Your task to perform on an android device: install app "DuckDuckGo Privacy Browser" Image 0: 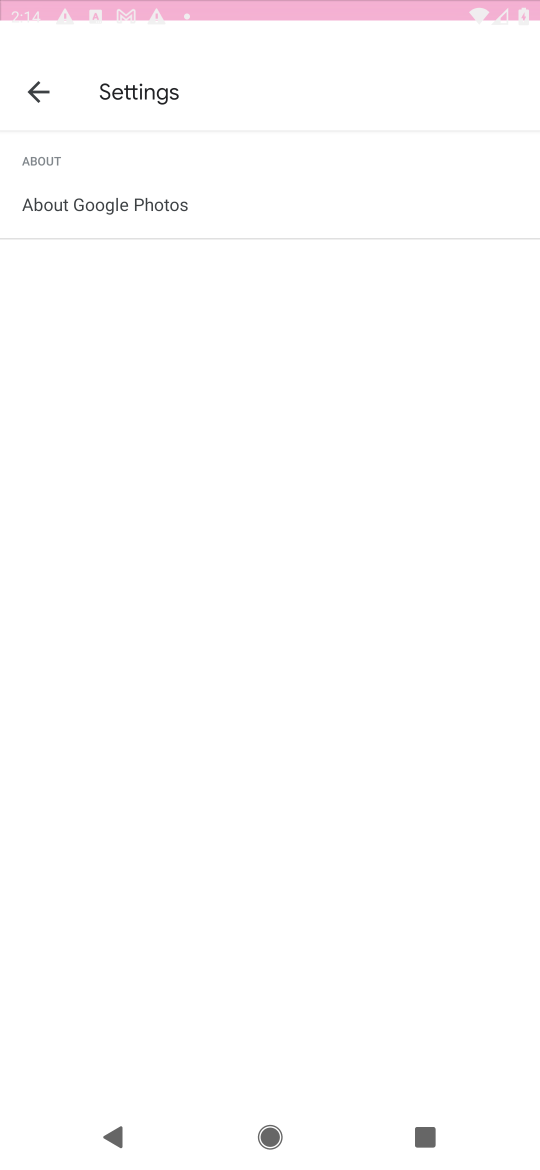
Step 0: press home button
Your task to perform on an android device: install app "DuckDuckGo Privacy Browser" Image 1: 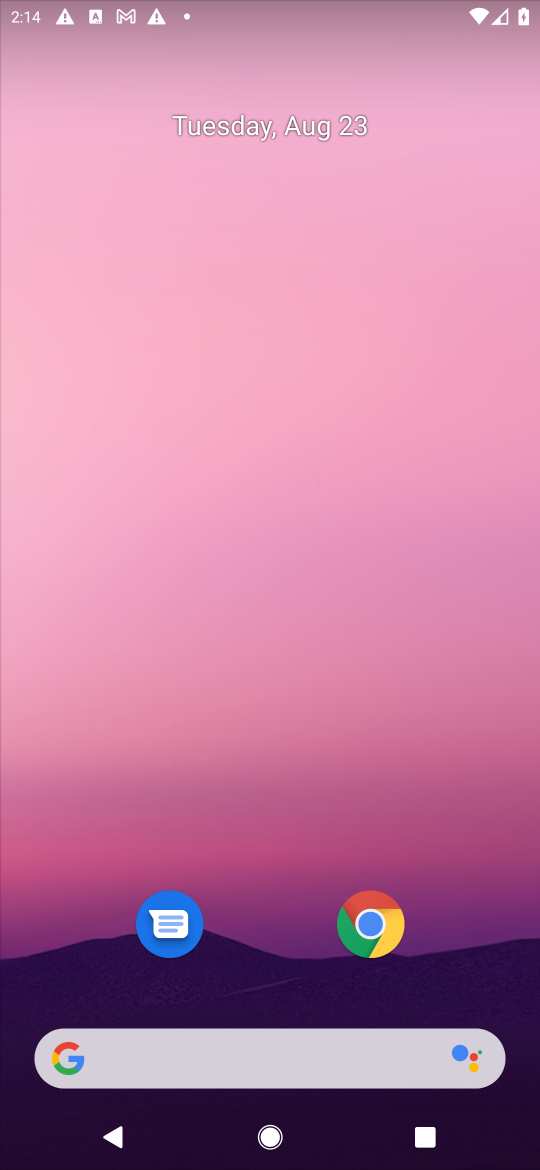
Step 1: drag from (468, 938) to (468, 99)
Your task to perform on an android device: install app "DuckDuckGo Privacy Browser" Image 2: 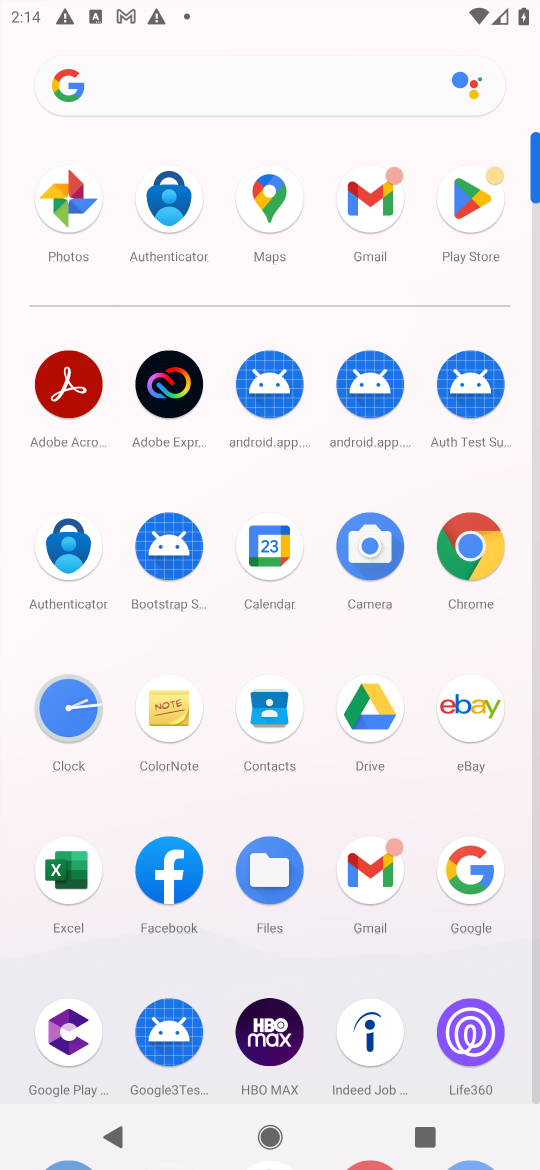
Step 2: click (486, 198)
Your task to perform on an android device: install app "DuckDuckGo Privacy Browser" Image 3: 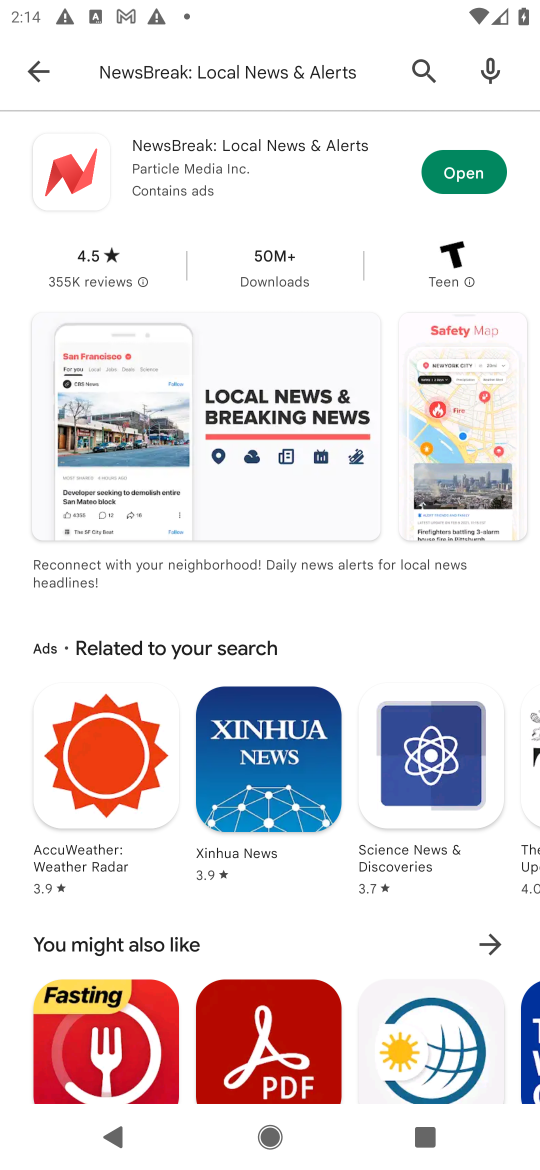
Step 3: press back button
Your task to perform on an android device: install app "DuckDuckGo Privacy Browser" Image 4: 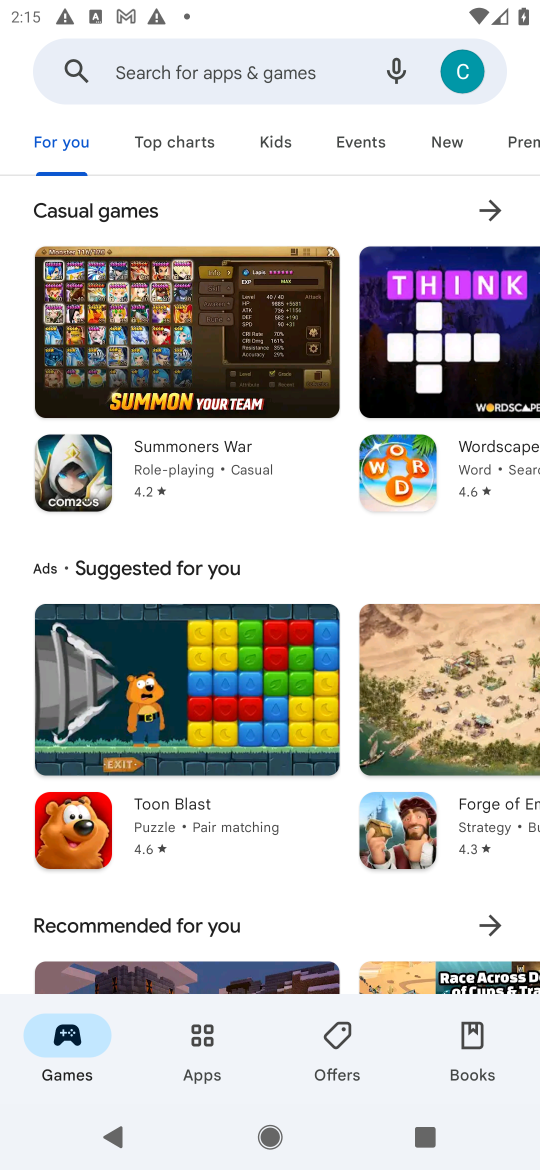
Step 4: click (256, 75)
Your task to perform on an android device: install app "DuckDuckGo Privacy Browser" Image 5: 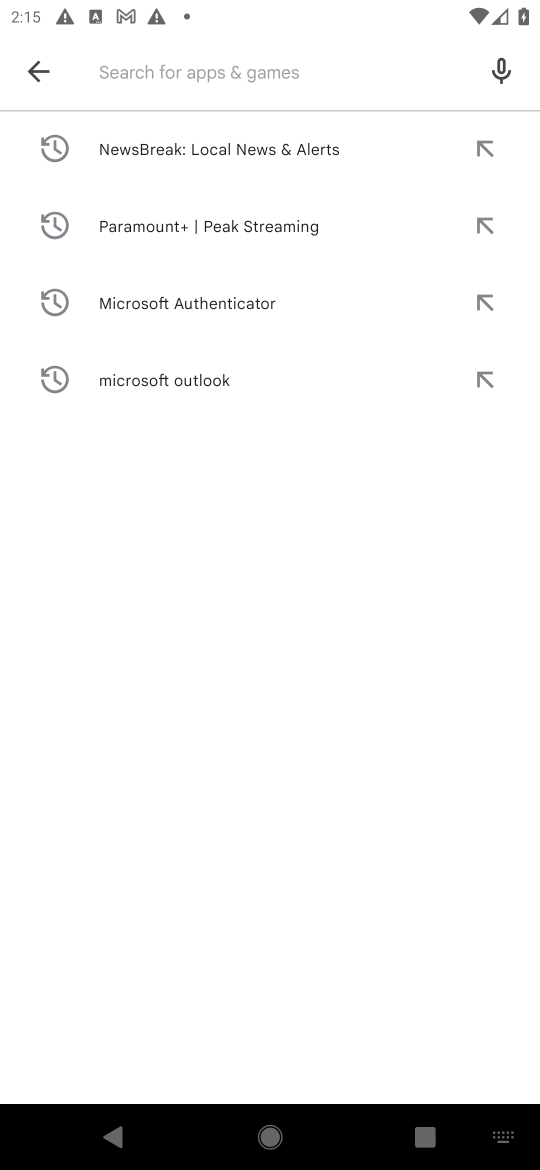
Step 5: type "DuckDuckGo Privacy Browser"
Your task to perform on an android device: install app "DuckDuckGo Privacy Browser" Image 6: 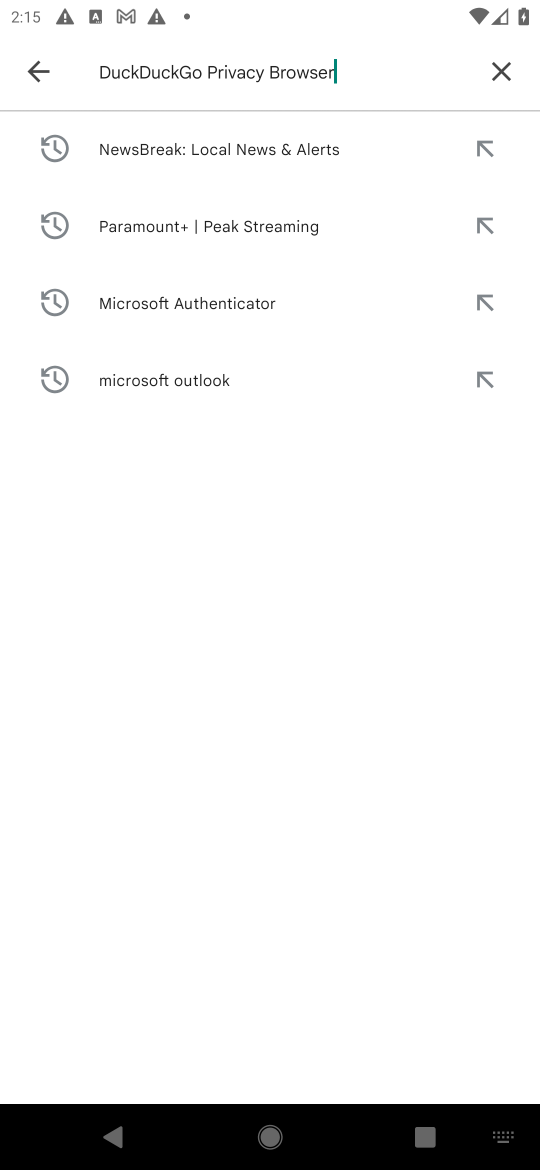
Step 6: press enter
Your task to perform on an android device: install app "DuckDuckGo Privacy Browser" Image 7: 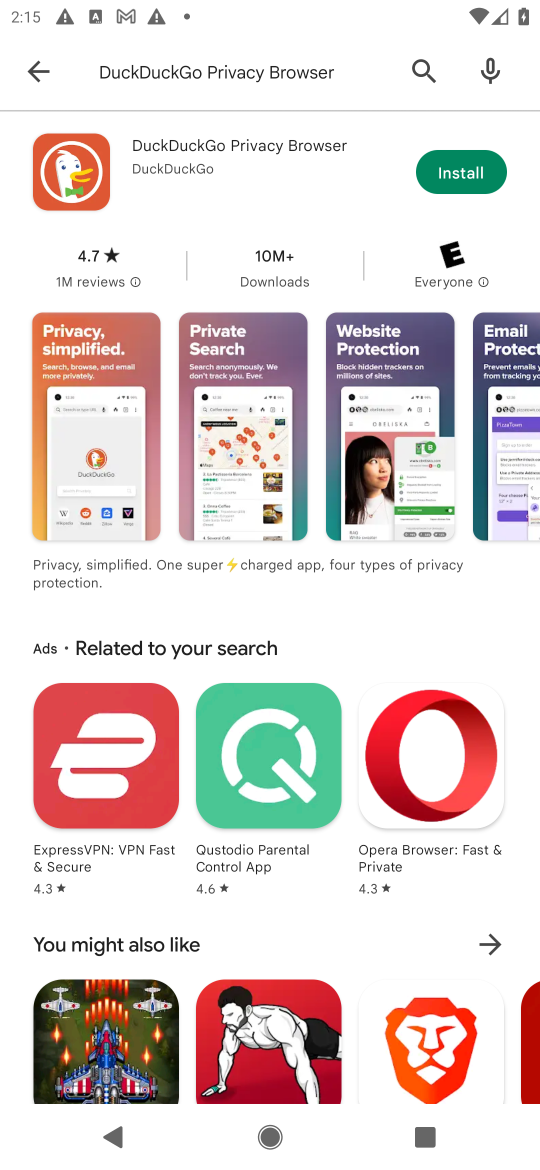
Step 7: click (457, 171)
Your task to perform on an android device: install app "DuckDuckGo Privacy Browser" Image 8: 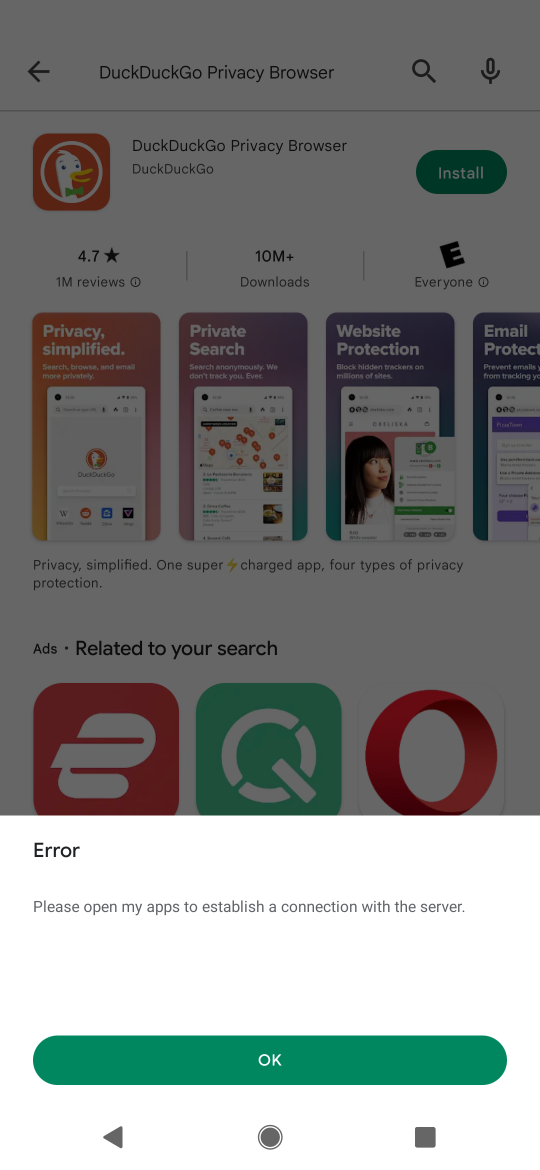
Step 8: task complete